Your task to perform on an android device: Show me popular games on the Play Store Image 0: 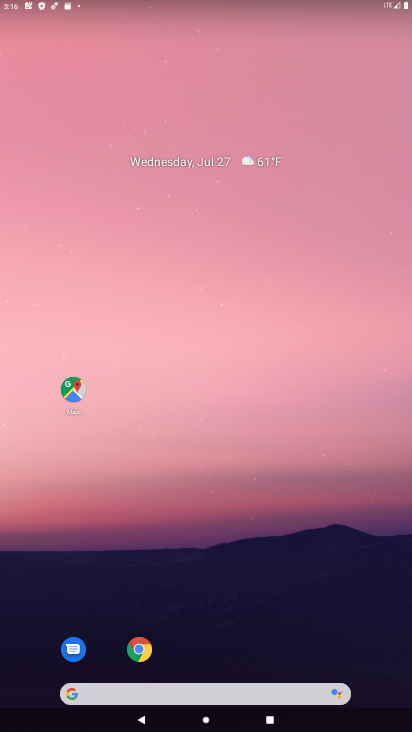
Step 0: press home button
Your task to perform on an android device: Show me popular games on the Play Store Image 1: 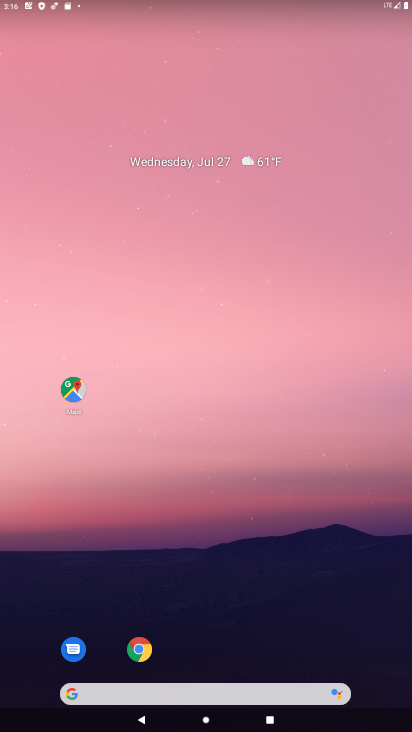
Step 1: drag from (203, 426) to (203, 181)
Your task to perform on an android device: Show me popular games on the Play Store Image 2: 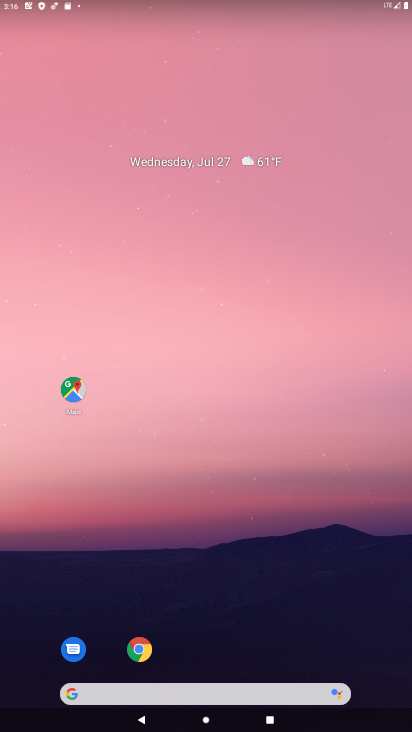
Step 2: drag from (199, 364) to (209, 31)
Your task to perform on an android device: Show me popular games on the Play Store Image 3: 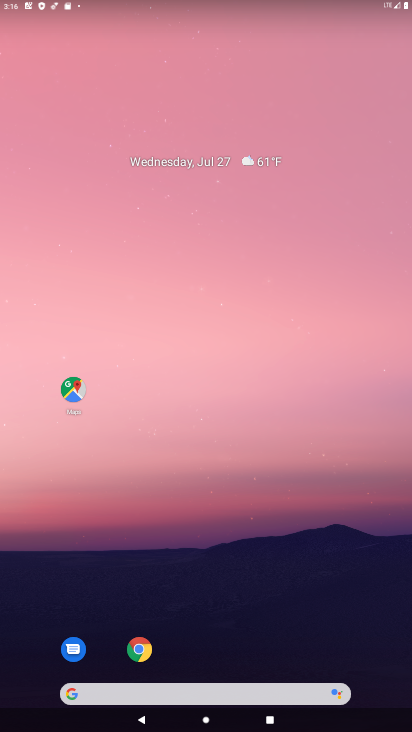
Step 3: drag from (181, 659) to (207, 20)
Your task to perform on an android device: Show me popular games on the Play Store Image 4: 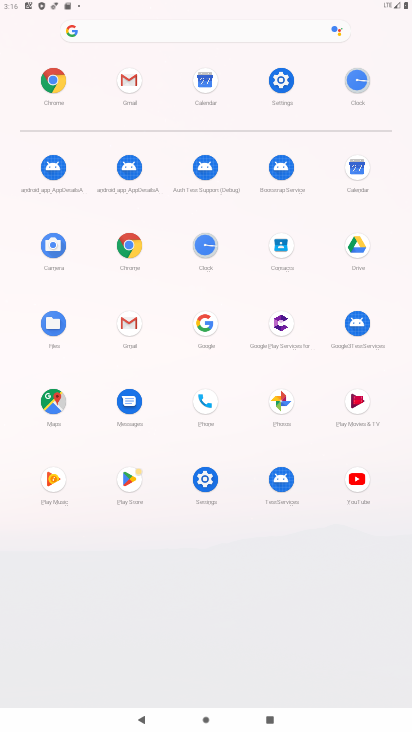
Step 4: click (126, 486)
Your task to perform on an android device: Show me popular games on the Play Store Image 5: 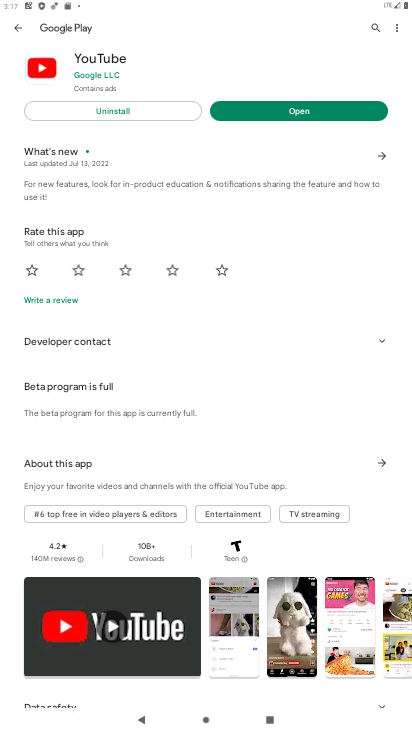
Step 5: click (264, 110)
Your task to perform on an android device: Show me popular games on the Play Store Image 6: 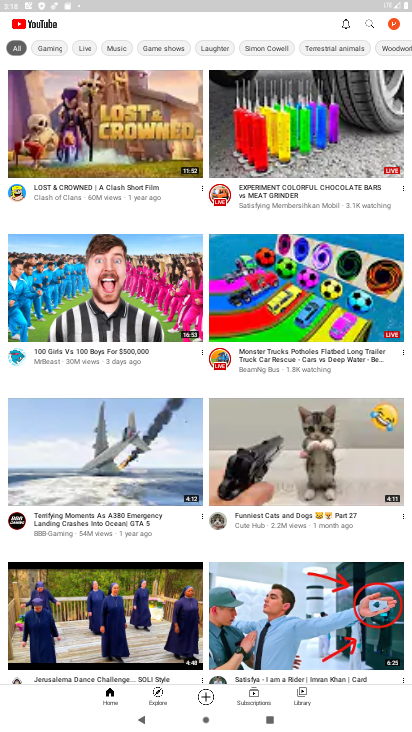
Step 6: task complete